Your task to perform on an android device: turn off javascript in the chrome app Image 0: 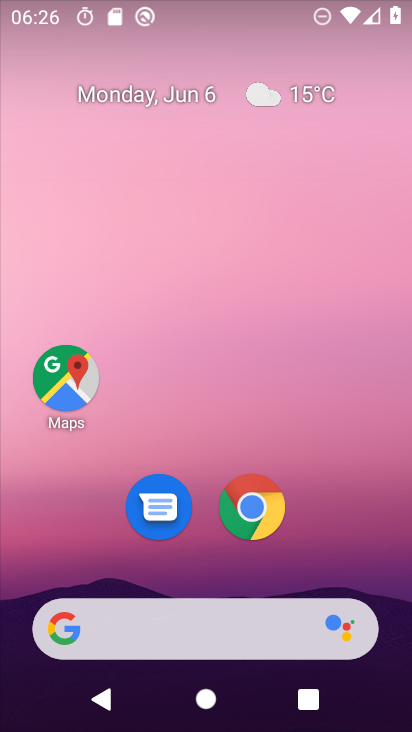
Step 0: click (257, 510)
Your task to perform on an android device: turn off javascript in the chrome app Image 1: 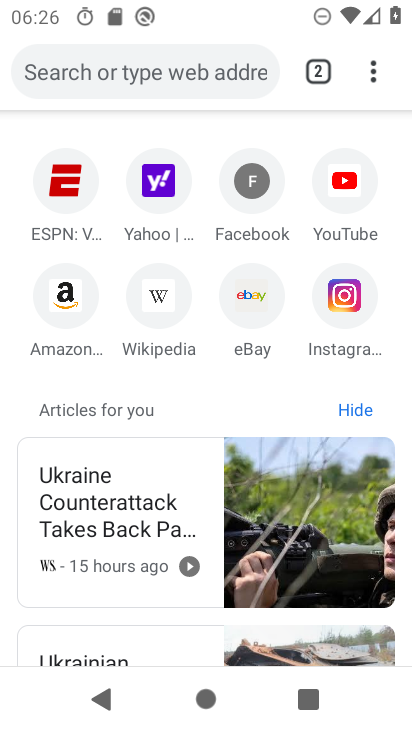
Step 1: click (374, 75)
Your task to perform on an android device: turn off javascript in the chrome app Image 2: 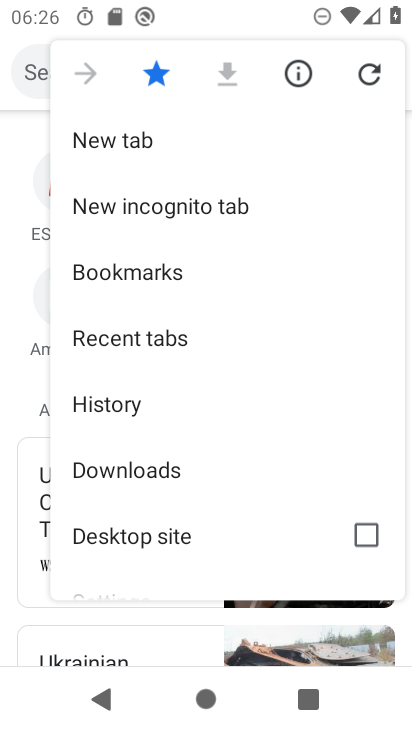
Step 2: drag from (150, 472) to (152, 166)
Your task to perform on an android device: turn off javascript in the chrome app Image 3: 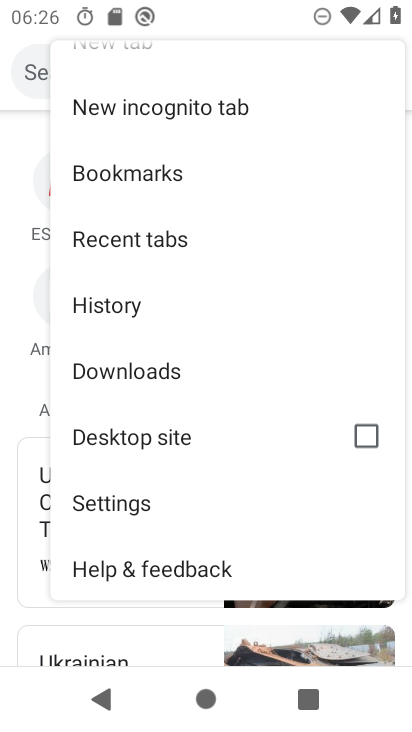
Step 3: click (112, 496)
Your task to perform on an android device: turn off javascript in the chrome app Image 4: 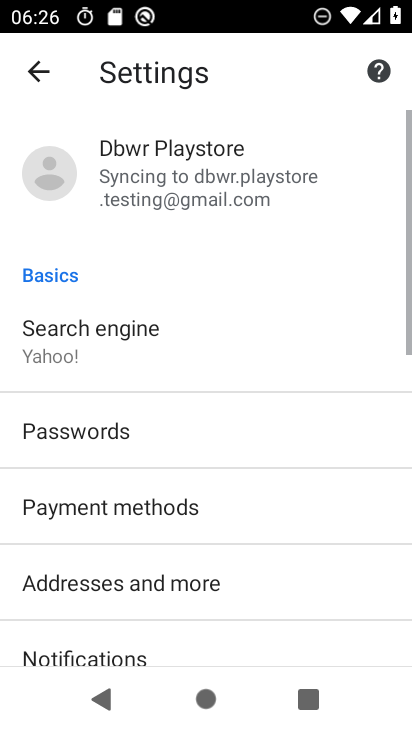
Step 4: drag from (169, 591) to (218, 204)
Your task to perform on an android device: turn off javascript in the chrome app Image 5: 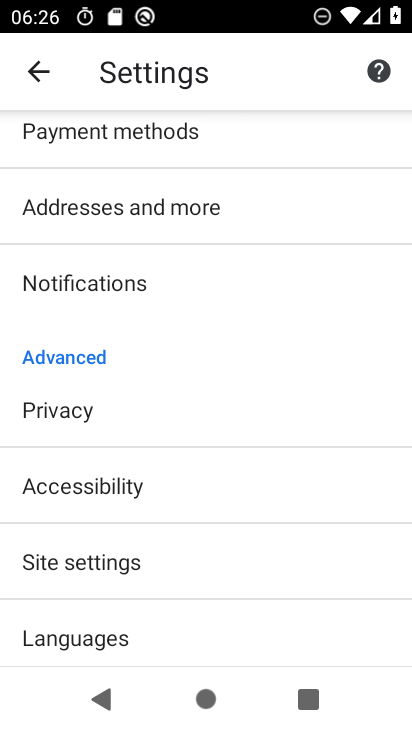
Step 5: click (112, 562)
Your task to perform on an android device: turn off javascript in the chrome app Image 6: 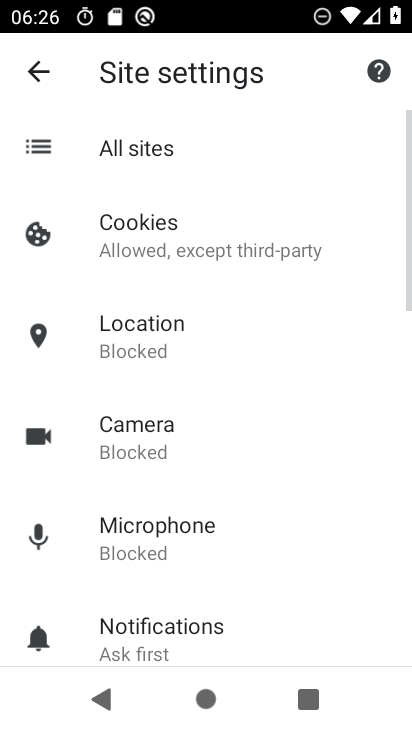
Step 6: drag from (144, 579) to (167, 208)
Your task to perform on an android device: turn off javascript in the chrome app Image 7: 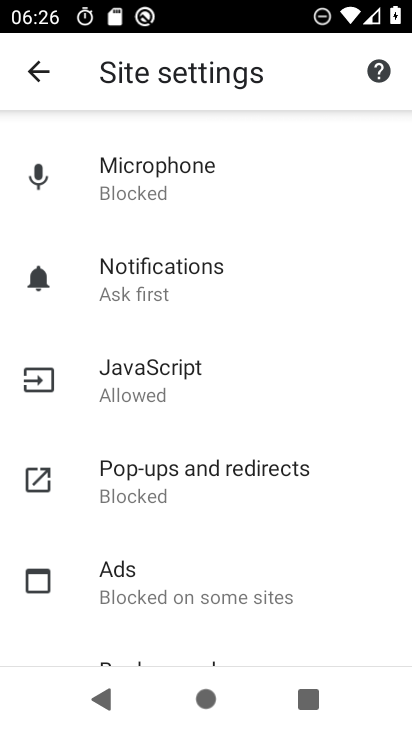
Step 7: click (139, 385)
Your task to perform on an android device: turn off javascript in the chrome app Image 8: 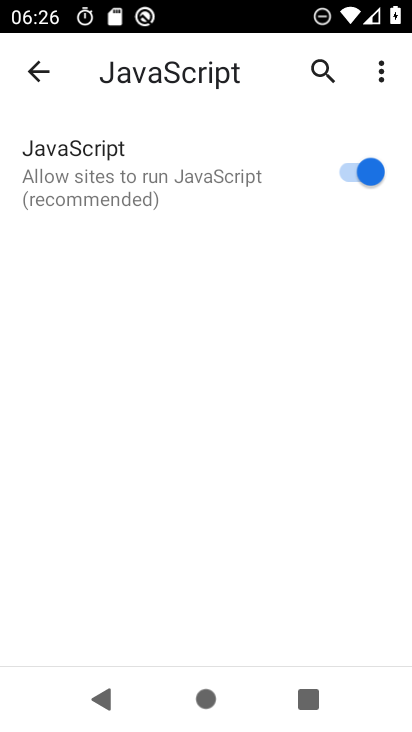
Step 8: click (353, 173)
Your task to perform on an android device: turn off javascript in the chrome app Image 9: 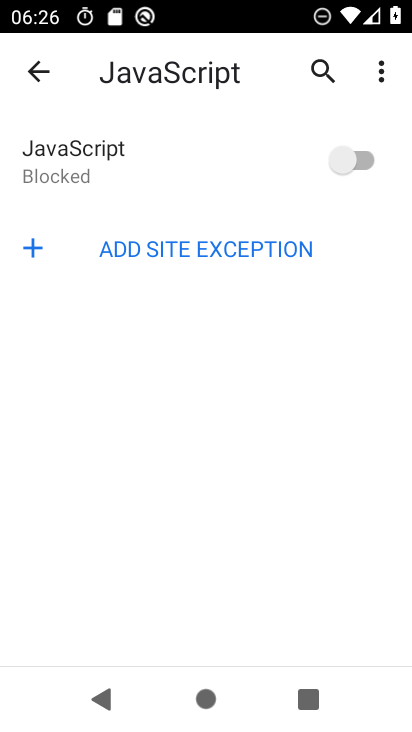
Step 9: task complete